Your task to perform on an android device: change notification settings in the gmail app Image 0: 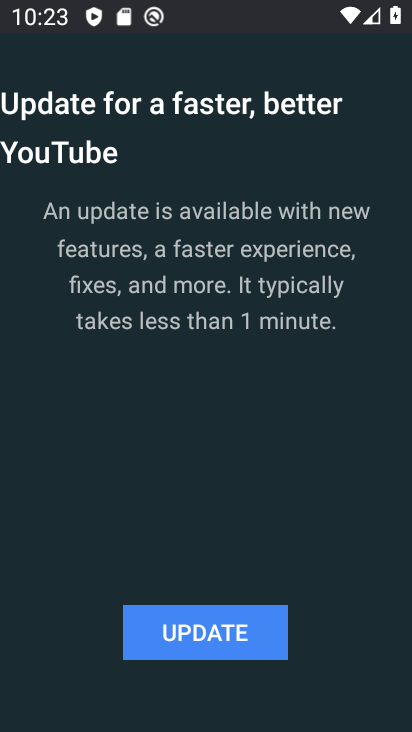
Step 0: press home button
Your task to perform on an android device: change notification settings in the gmail app Image 1: 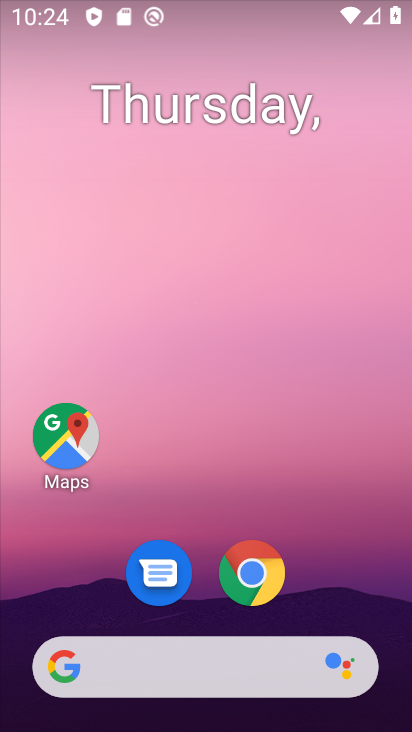
Step 1: drag from (317, 571) to (285, 146)
Your task to perform on an android device: change notification settings in the gmail app Image 2: 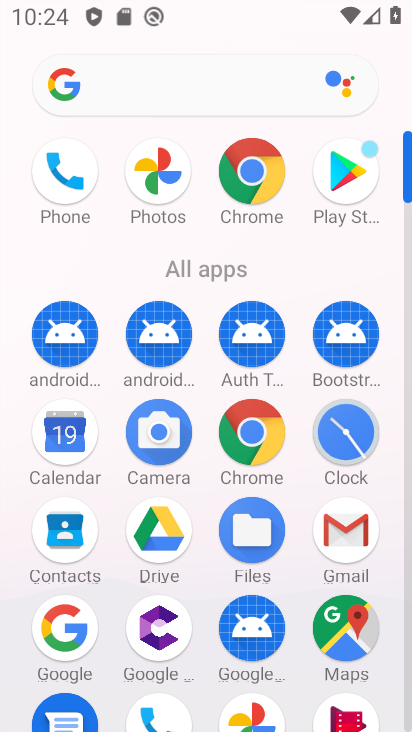
Step 2: click (334, 532)
Your task to perform on an android device: change notification settings in the gmail app Image 3: 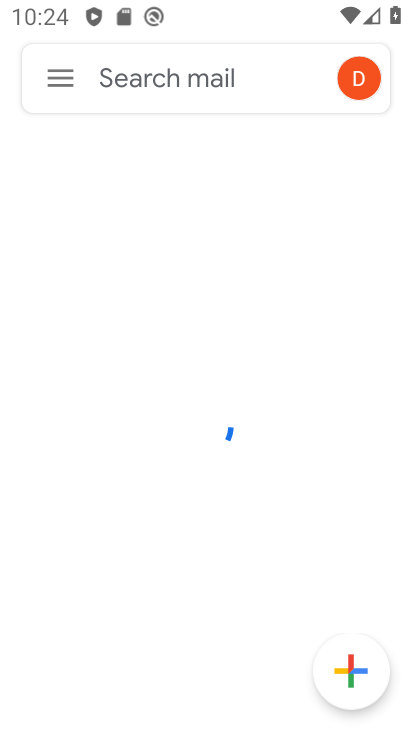
Step 3: click (58, 75)
Your task to perform on an android device: change notification settings in the gmail app Image 4: 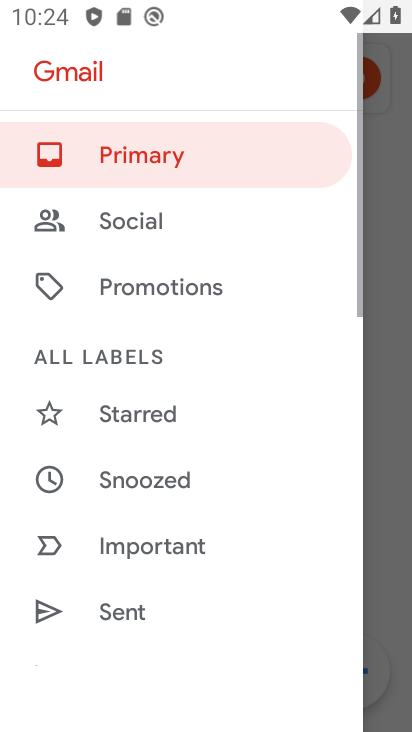
Step 4: drag from (81, 649) to (164, 270)
Your task to perform on an android device: change notification settings in the gmail app Image 5: 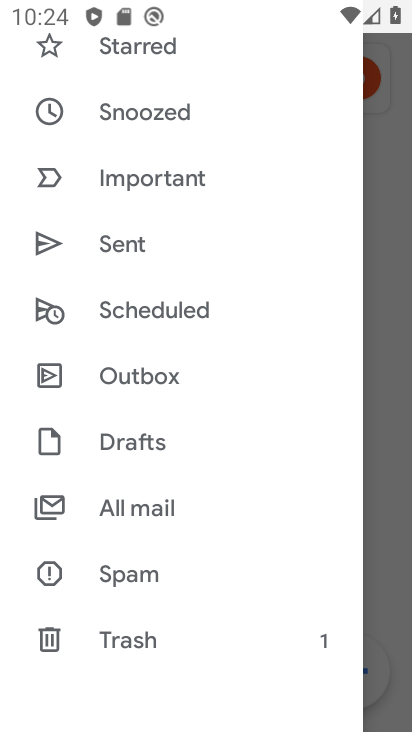
Step 5: drag from (108, 638) to (203, 288)
Your task to perform on an android device: change notification settings in the gmail app Image 6: 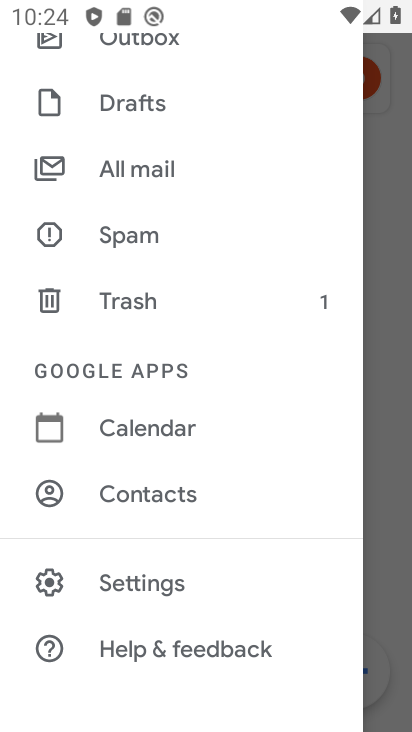
Step 6: click (137, 600)
Your task to perform on an android device: change notification settings in the gmail app Image 7: 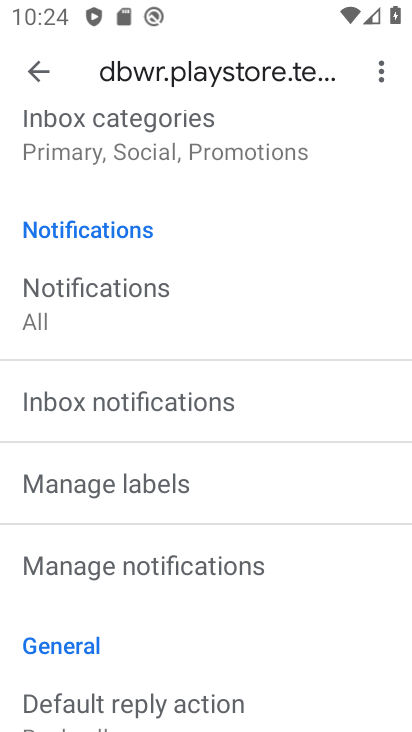
Step 7: click (175, 573)
Your task to perform on an android device: change notification settings in the gmail app Image 8: 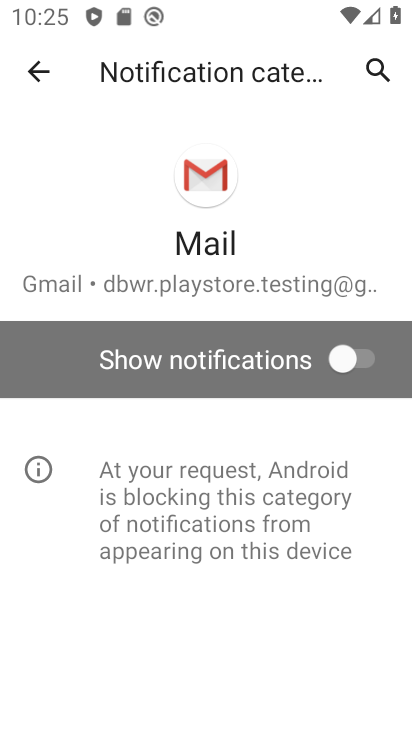
Step 8: click (343, 359)
Your task to perform on an android device: change notification settings in the gmail app Image 9: 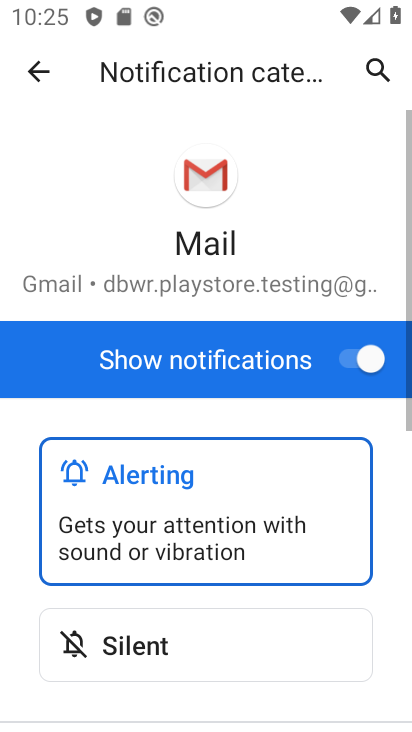
Step 9: task complete